Your task to perform on an android device: toggle translation in the chrome app Image 0: 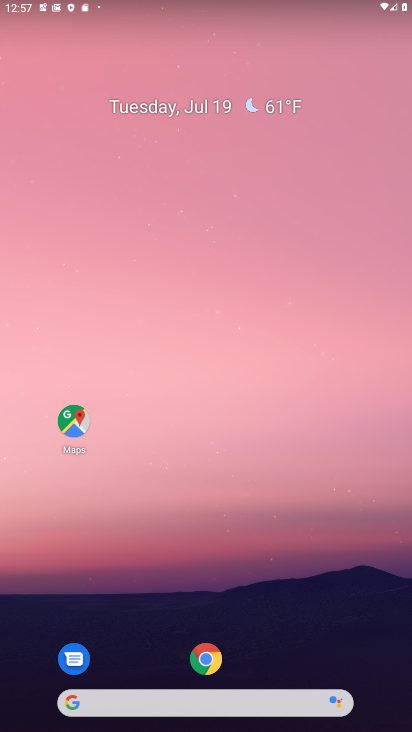
Step 0: click (201, 649)
Your task to perform on an android device: toggle translation in the chrome app Image 1: 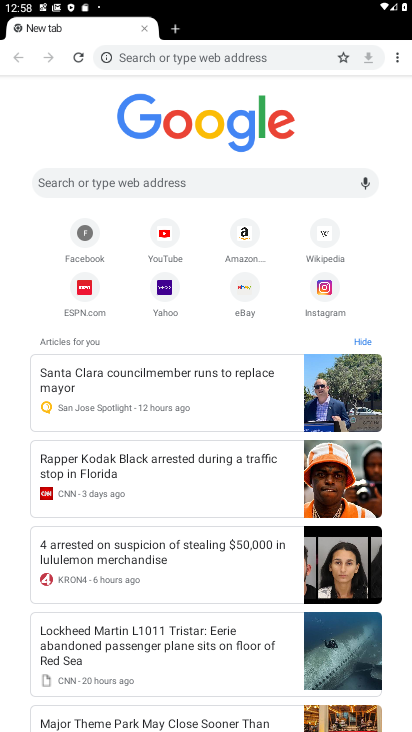
Step 1: click (397, 57)
Your task to perform on an android device: toggle translation in the chrome app Image 2: 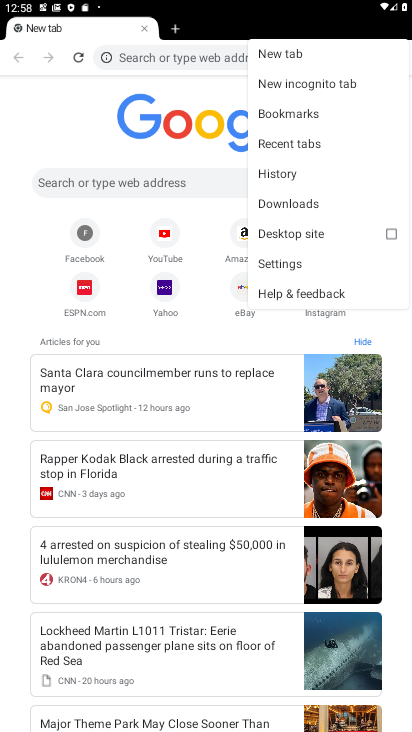
Step 2: click (282, 257)
Your task to perform on an android device: toggle translation in the chrome app Image 3: 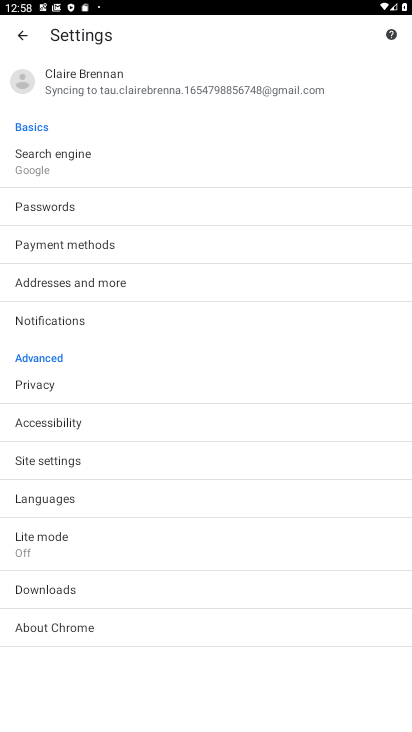
Step 3: click (64, 536)
Your task to perform on an android device: toggle translation in the chrome app Image 4: 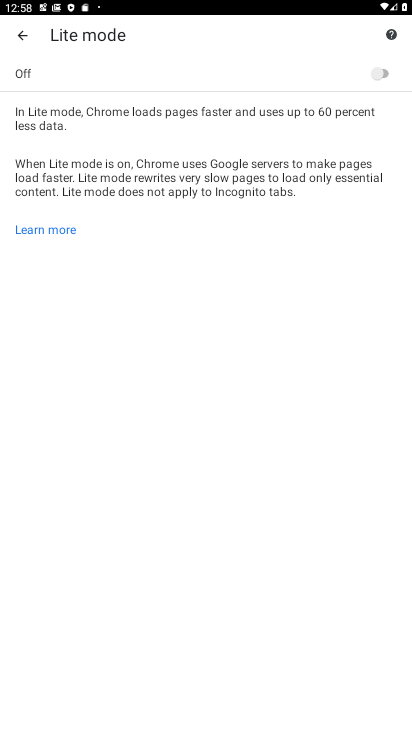
Step 4: click (23, 37)
Your task to perform on an android device: toggle translation in the chrome app Image 5: 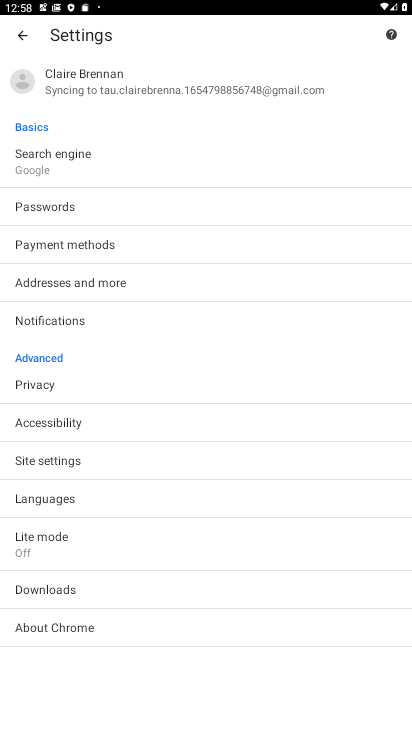
Step 5: click (71, 497)
Your task to perform on an android device: toggle translation in the chrome app Image 6: 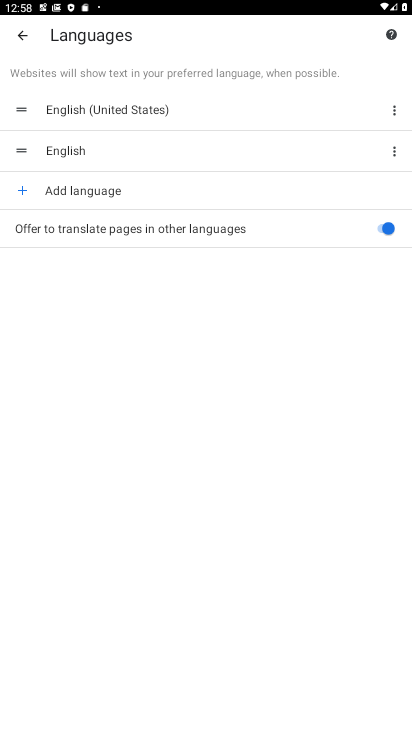
Step 6: click (380, 234)
Your task to perform on an android device: toggle translation in the chrome app Image 7: 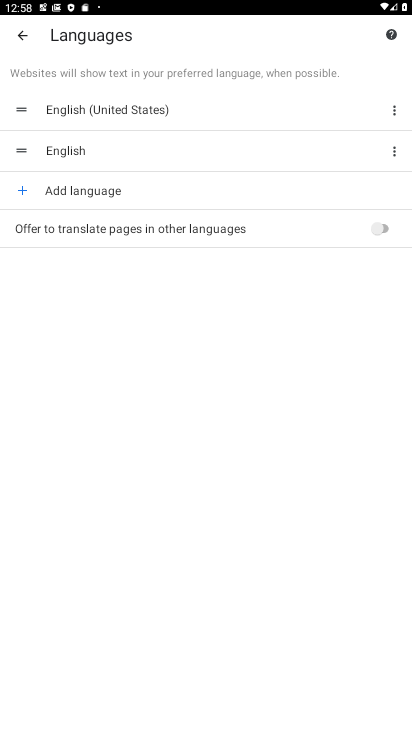
Step 7: task complete